Your task to perform on an android device: Go to privacy settings Image 0: 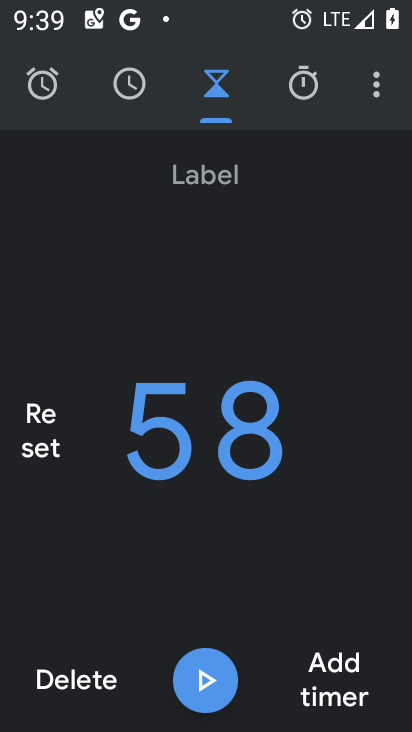
Step 0: press home button
Your task to perform on an android device: Go to privacy settings Image 1: 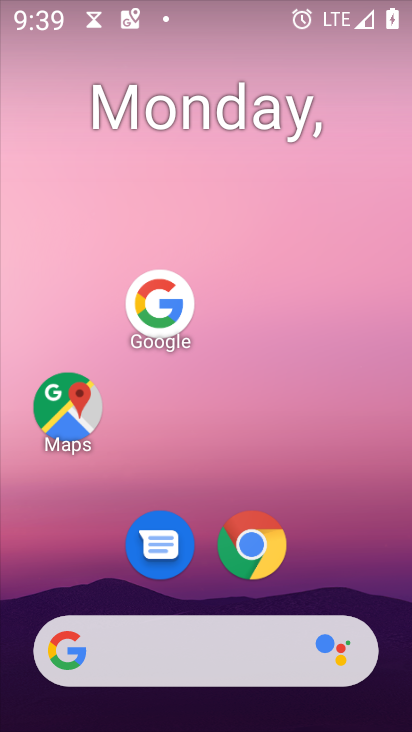
Step 1: drag from (191, 664) to (303, 50)
Your task to perform on an android device: Go to privacy settings Image 2: 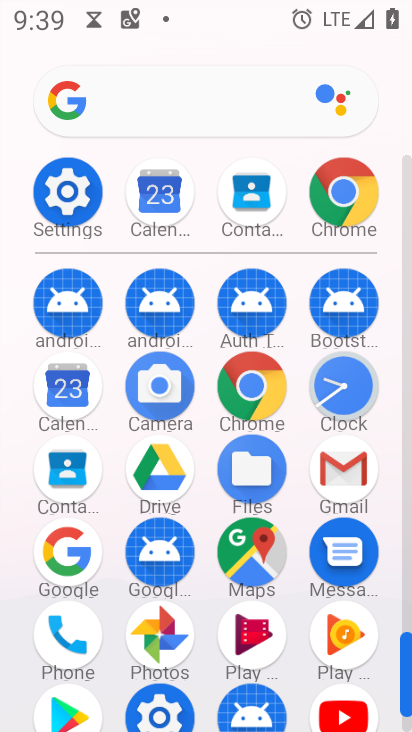
Step 2: click (69, 193)
Your task to perform on an android device: Go to privacy settings Image 3: 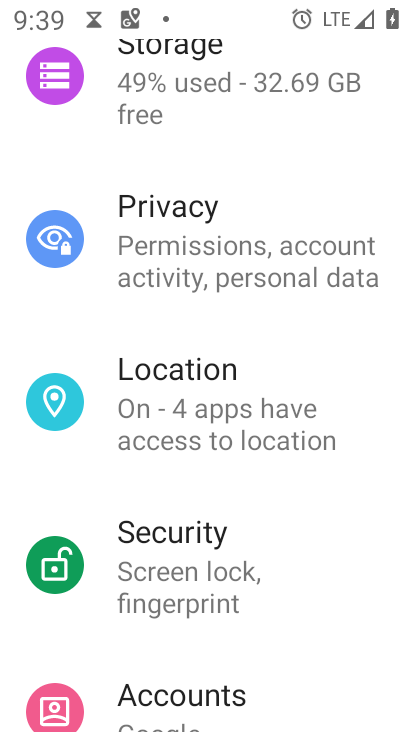
Step 3: click (179, 242)
Your task to perform on an android device: Go to privacy settings Image 4: 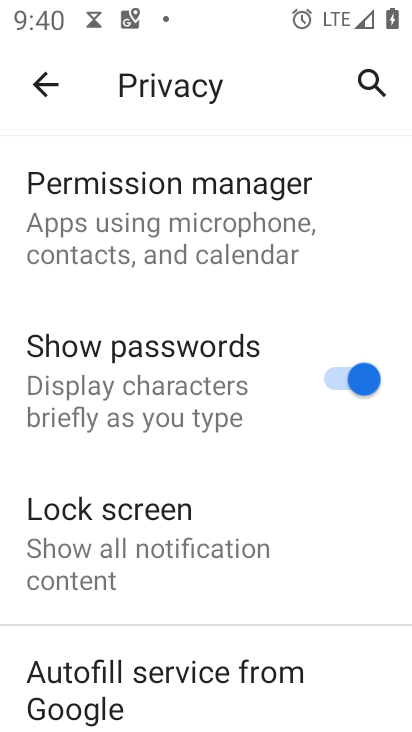
Step 4: task complete